Your task to perform on an android device: Open Youtube and go to "Your channel" Image 0: 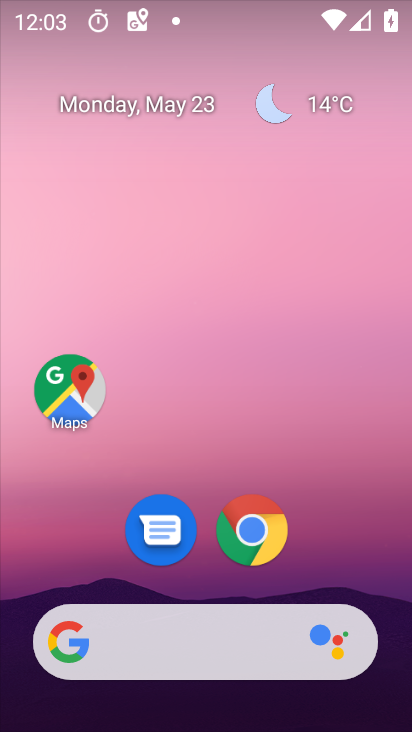
Step 0: drag from (385, 669) to (277, 34)
Your task to perform on an android device: Open Youtube and go to "Your channel" Image 1: 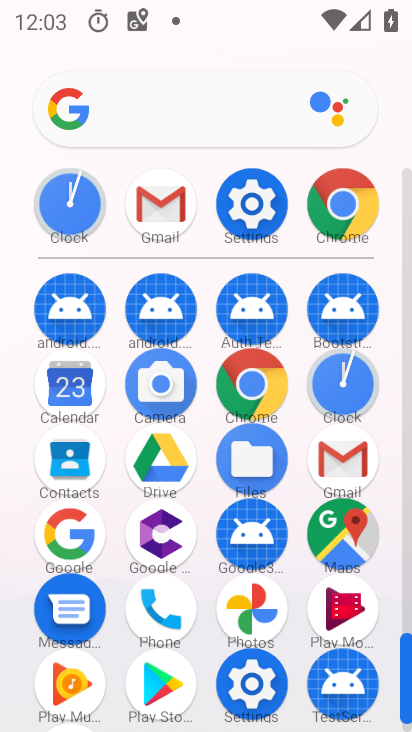
Step 1: drag from (201, 650) to (168, 242)
Your task to perform on an android device: Open Youtube and go to "Your channel" Image 2: 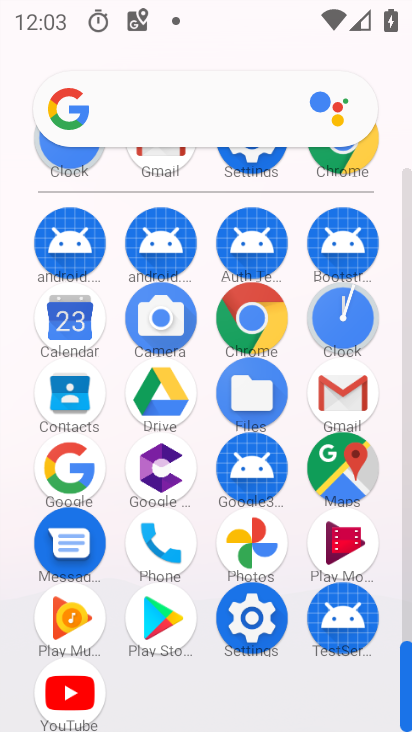
Step 2: click (61, 664)
Your task to perform on an android device: Open Youtube and go to "Your channel" Image 3: 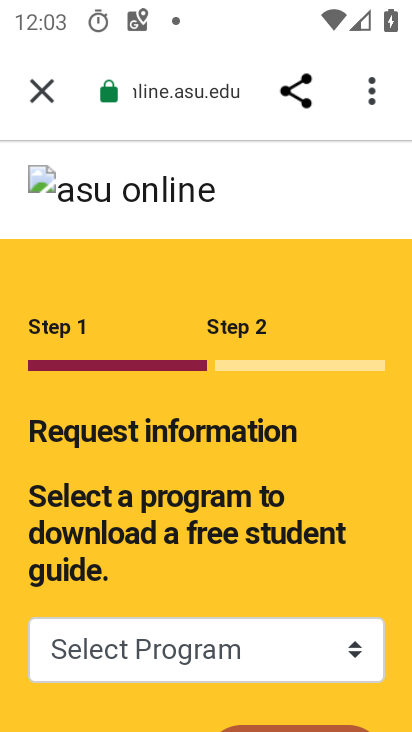
Step 3: press back button
Your task to perform on an android device: Open Youtube and go to "Your channel" Image 4: 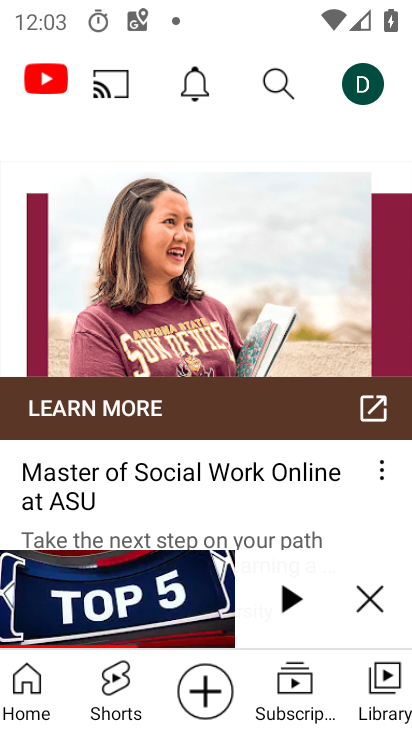
Step 4: click (365, 92)
Your task to perform on an android device: Open Youtube and go to "Your channel" Image 5: 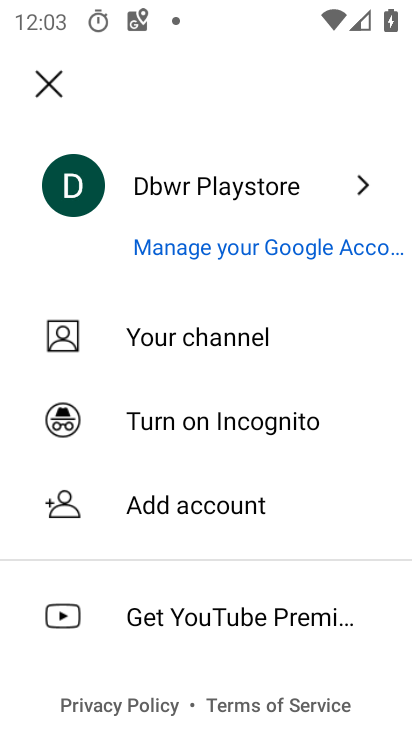
Step 5: click (122, 342)
Your task to perform on an android device: Open Youtube and go to "Your channel" Image 6: 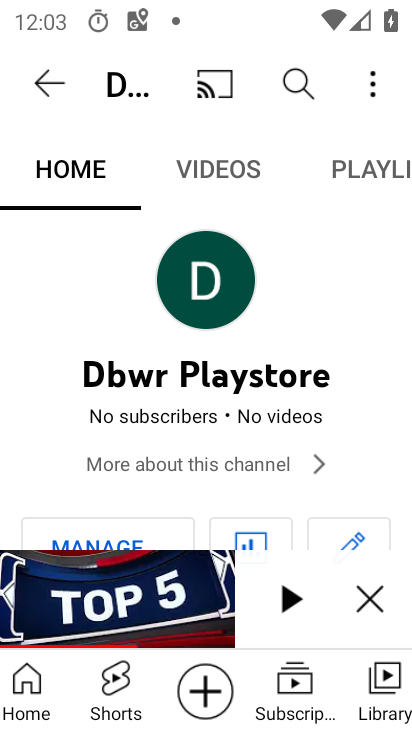
Step 6: task complete